Your task to perform on an android device: Open internet settings Image 0: 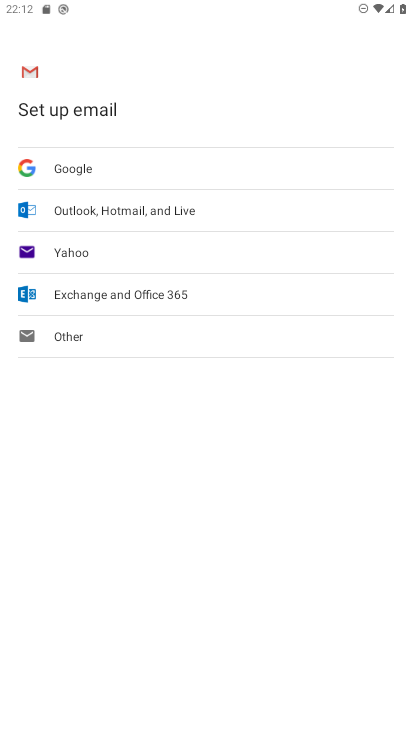
Step 0: press home button
Your task to perform on an android device: Open internet settings Image 1: 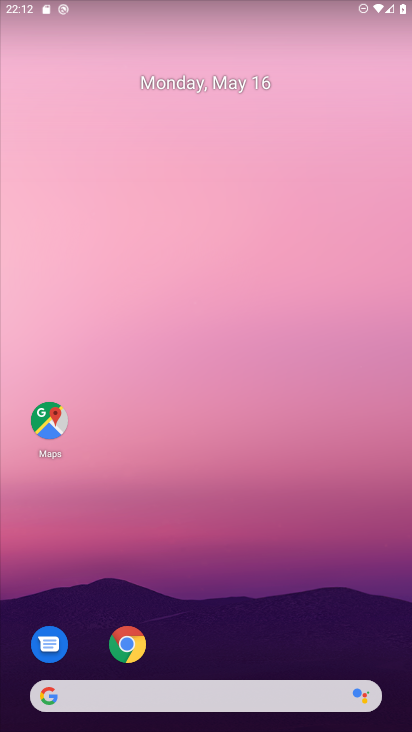
Step 1: drag from (42, 596) to (221, 203)
Your task to perform on an android device: Open internet settings Image 2: 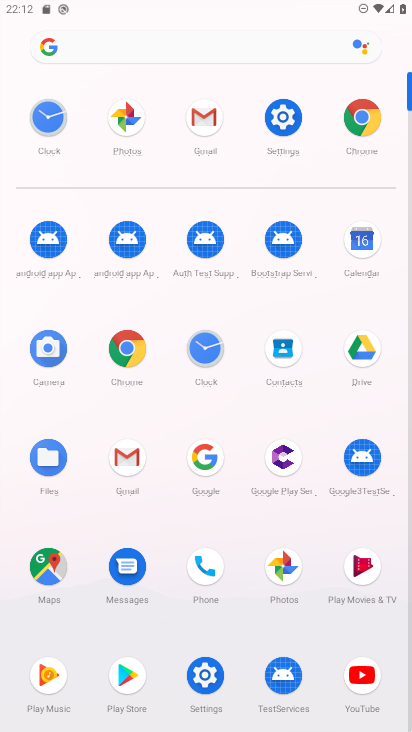
Step 2: click (278, 115)
Your task to perform on an android device: Open internet settings Image 3: 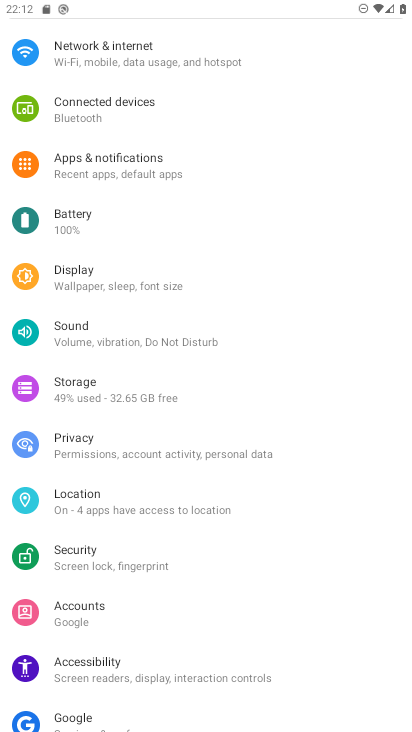
Step 3: click (126, 55)
Your task to perform on an android device: Open internet settings Image 4: 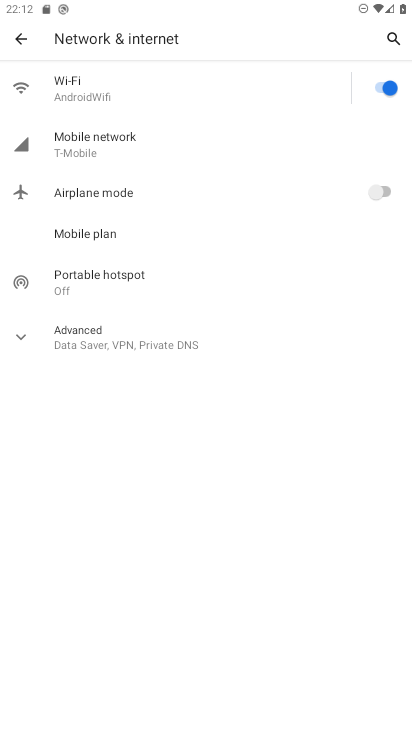
Step 4: click (116, 139)
Your task to perform on an android device: Open internet settings Image 5: 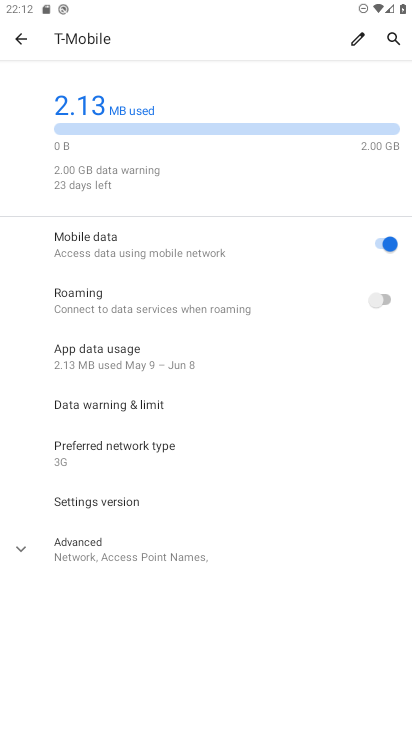
Step 5: task complete